Your task to perform on an android device: toggle wifi Image 0: 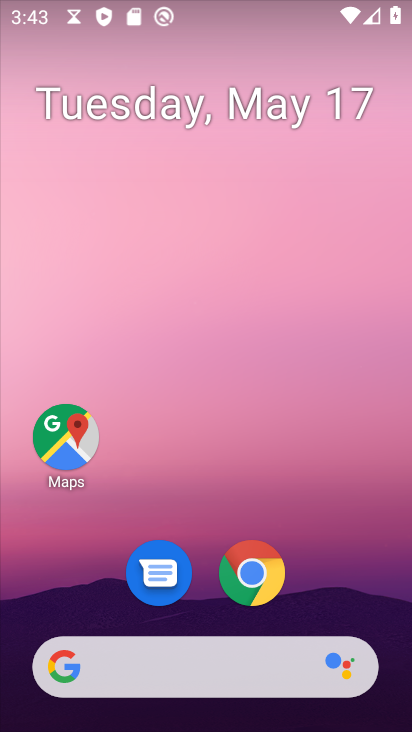
Step 0: drag from (343, 599) to (272, 100)
Your task to perform on an android device: toggle wifi Image 1: 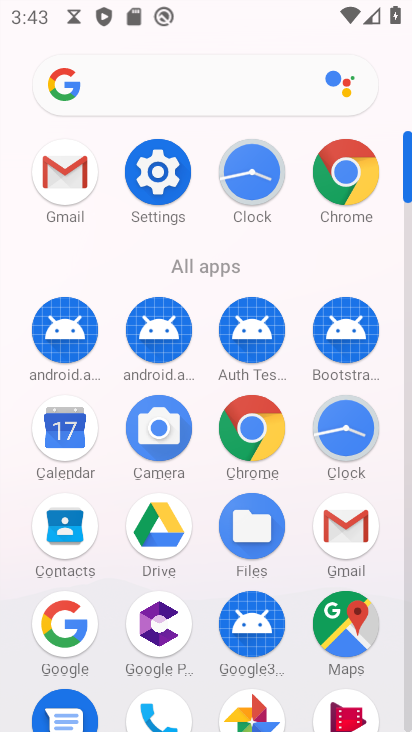
Step 1: click (172, 167)
Your task to perform on an android device: toggle wifi Image 2: 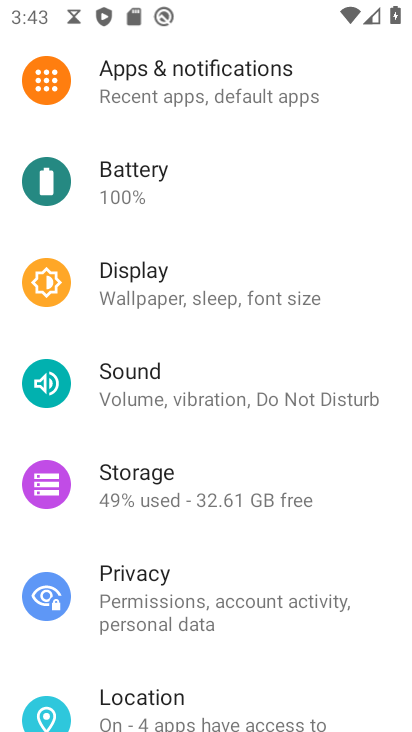
Step 2: drag from (262, 174) to (226, 725)
Your task to perform on an android device: toggle wifi Image 3: 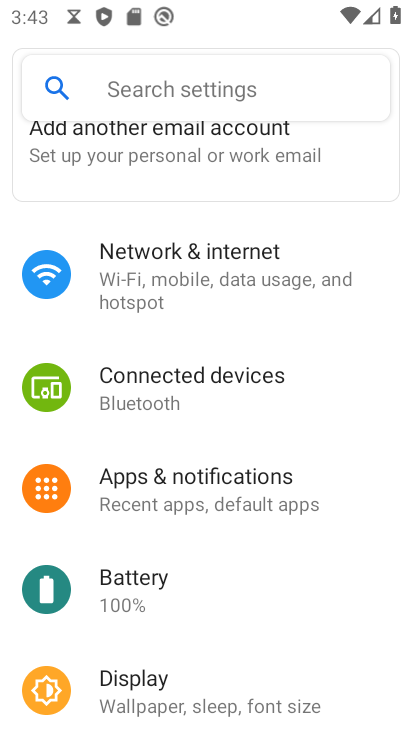
Step 3: click (228, 263)
Your task to perform on an android device: toggle wifi Image 4: 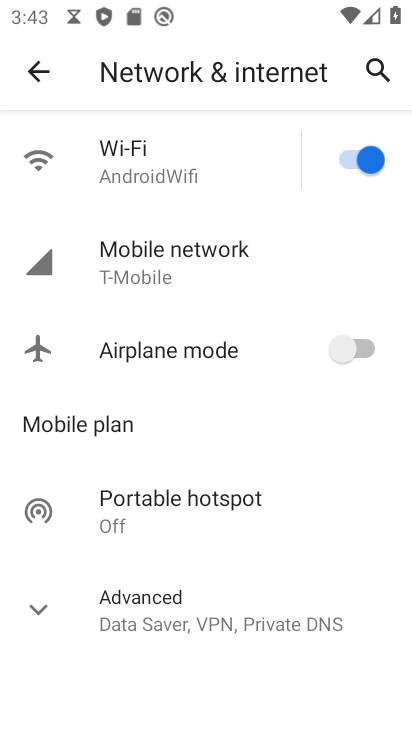
Step 4: click (372, 160)
Your task to perform on an android device: toggle wifi Image 5: 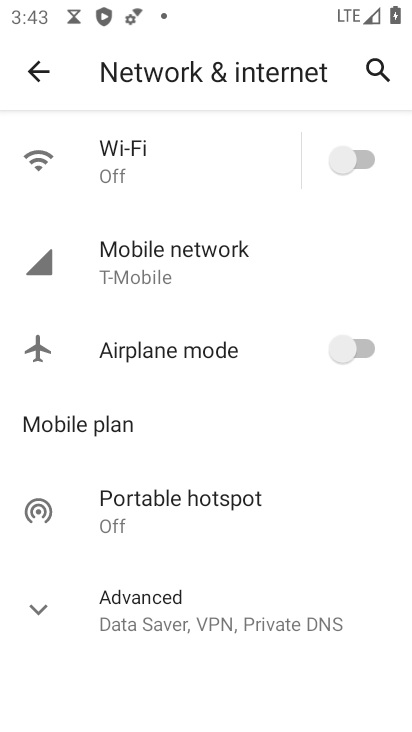
Step 5: task complete